Your task to perform on an android device: What is the recent news? Image 0: 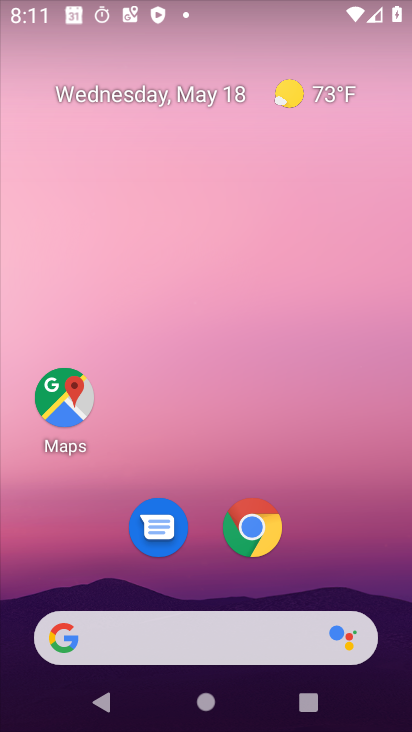
Step 0: drag from (4, 266) to (411, 481)
Your task to perform on an android device: What is the recent news? Image 1: 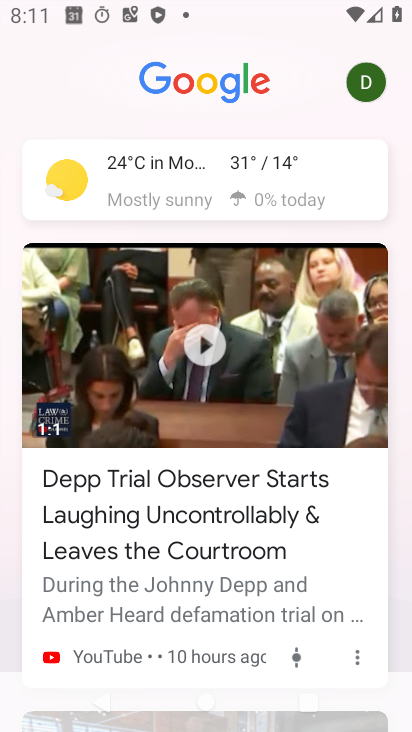
Step 1: task complete